Your task to perform on an android device: see sites visited before in the chrome app Image 0: 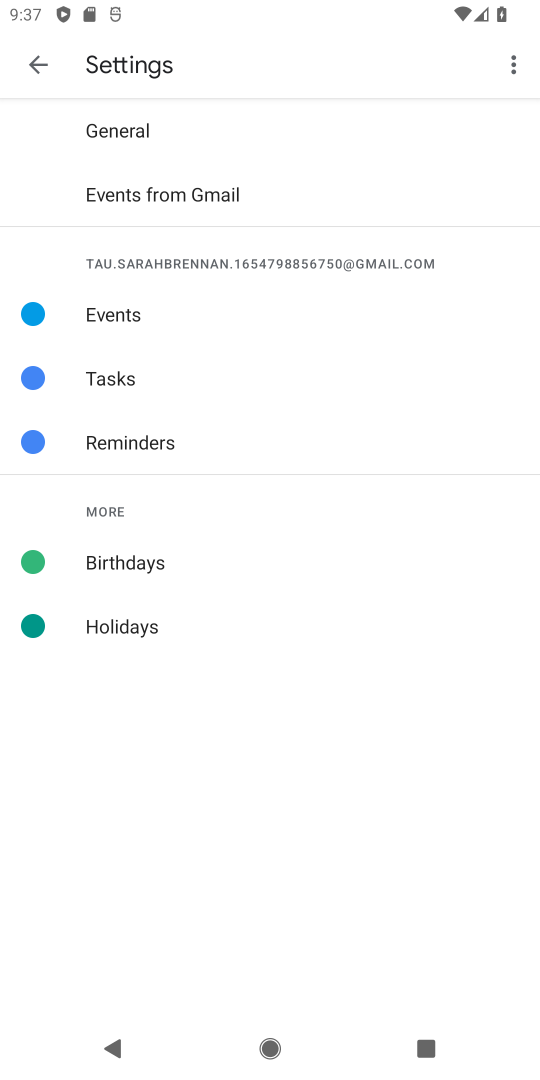
Step 0: press home button
Your task to perform on an android device: see sites visited before in the chrome app Image 1: 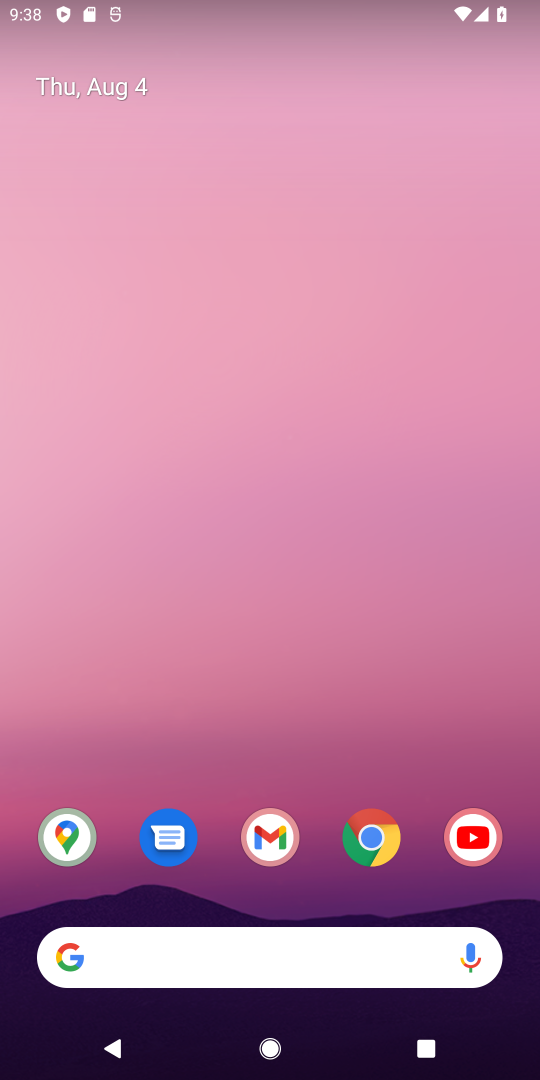
Step 1: drag from (399, 871) to (148, 20)
Your task to perform on an android device: see sites visited before in the chrome app Image 2: 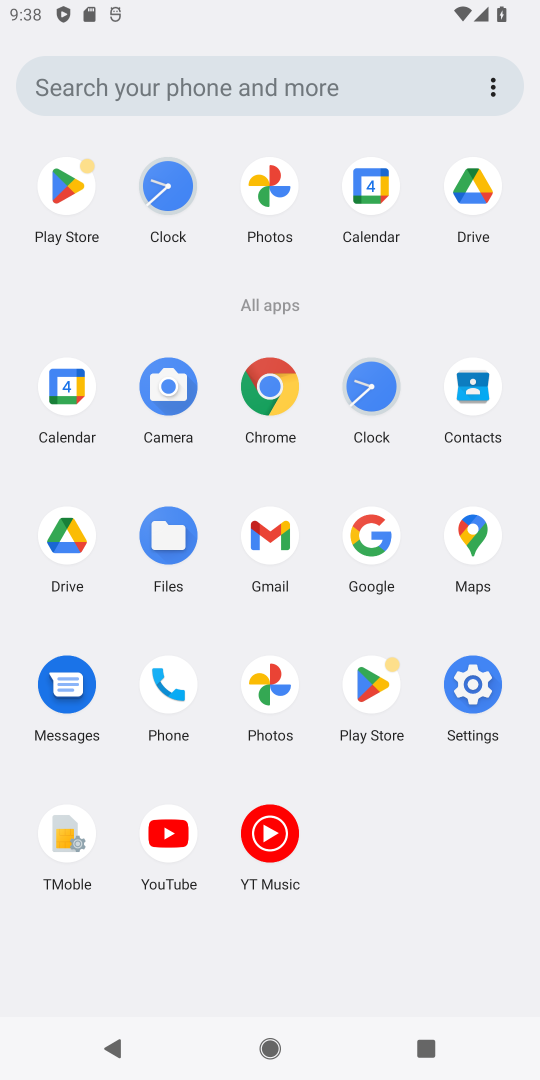
Step 2: click (272, 408)
Your task to perform on an android device: see sites visited before in the chrome app Image 3: 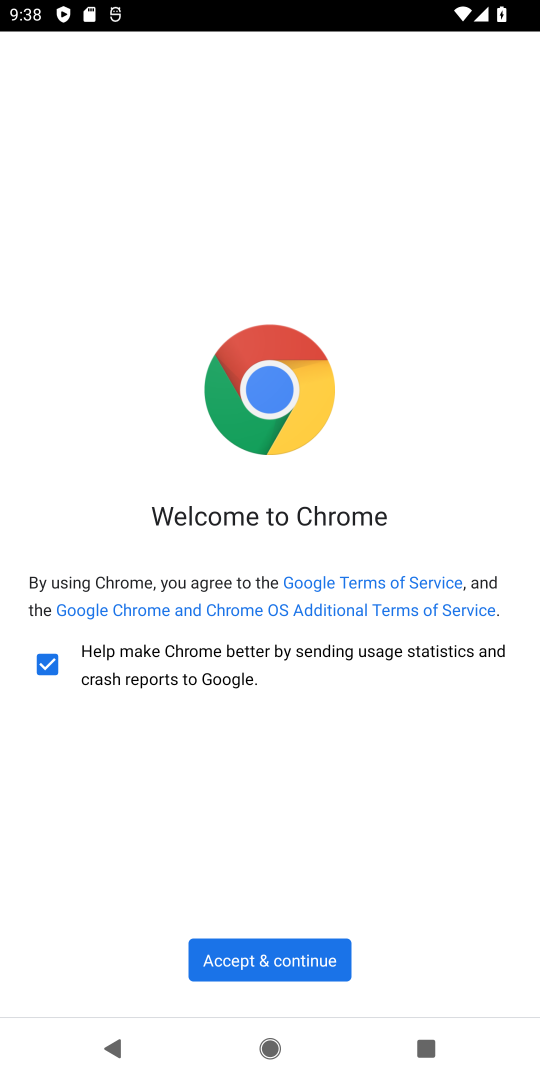
Step 3: click (294, 963)
Your task to perform on an android device: see sites visited before in the chrome app Image 4: 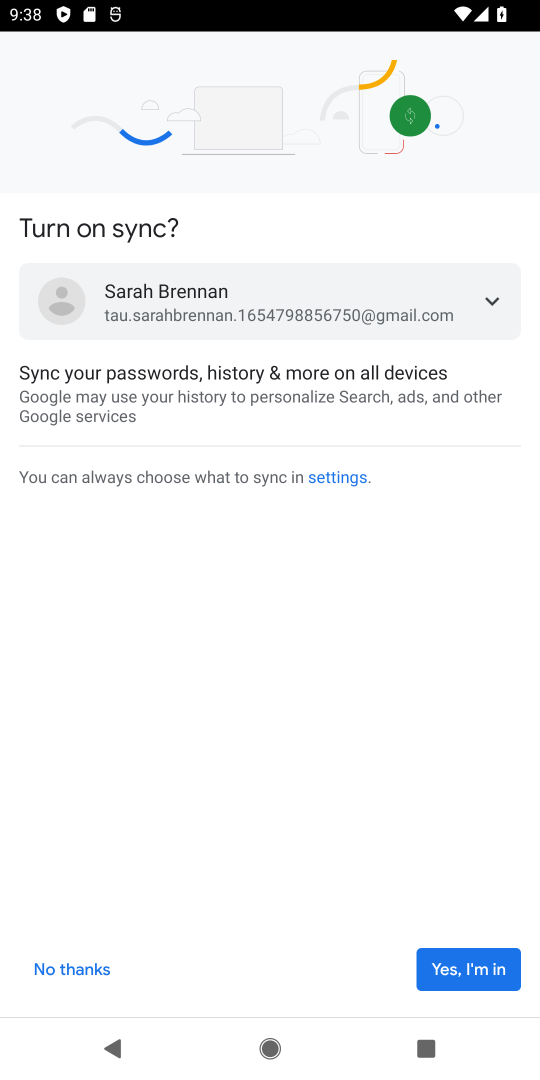
Step 4: click (455, 963)
Your task to perform on an android device: see sites visited before in the chrome app Image 5: 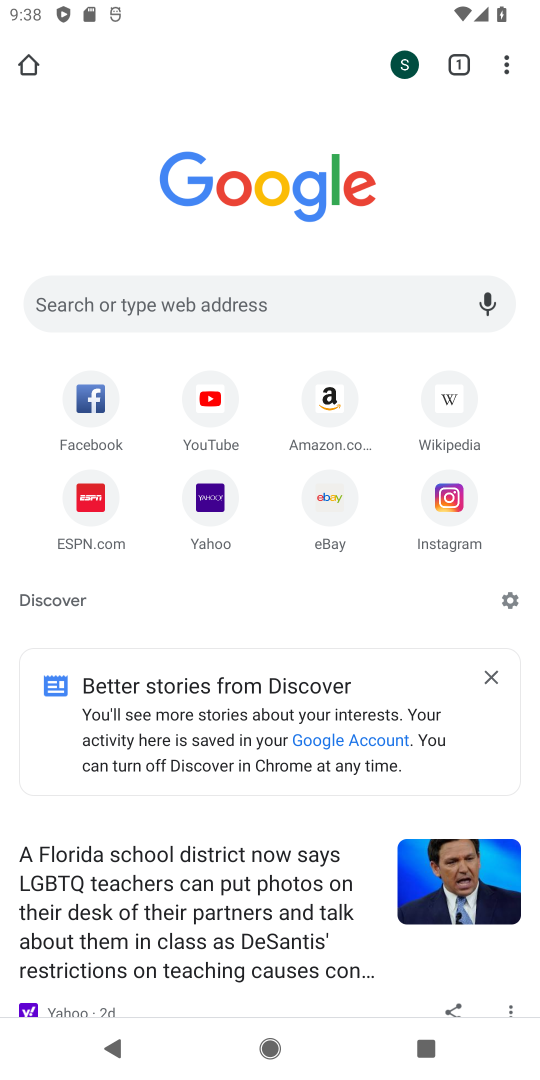
Step 5: task complete